Your task to perform on an android device: What's the weather today? Image 0: 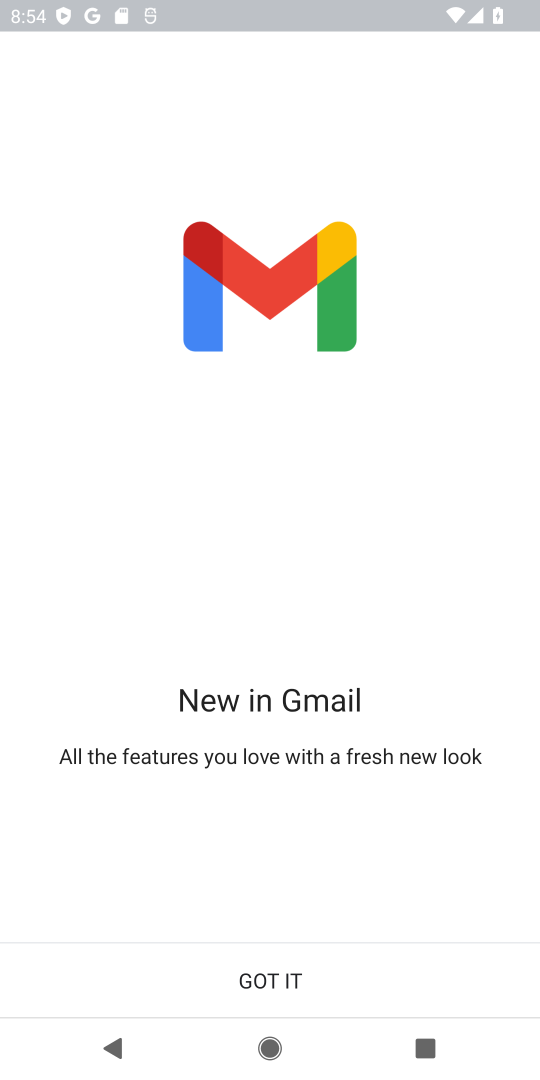
Step 0: press home button
Your task to perform on an android device: What's the weather today? Image 1: 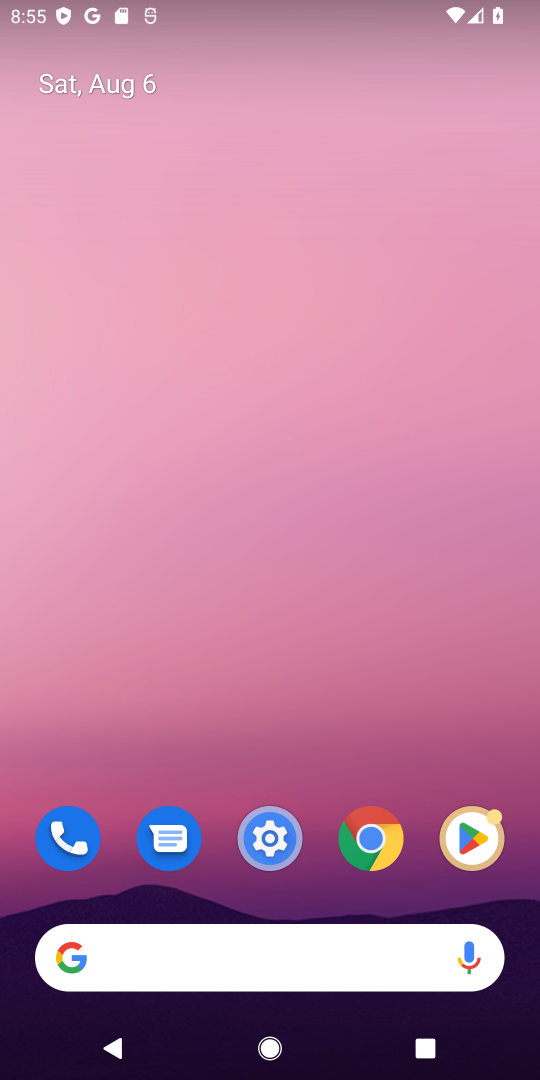
Step 1: click (351, 969)
Your task to perform on an android device: What's the weather today? Image 2: 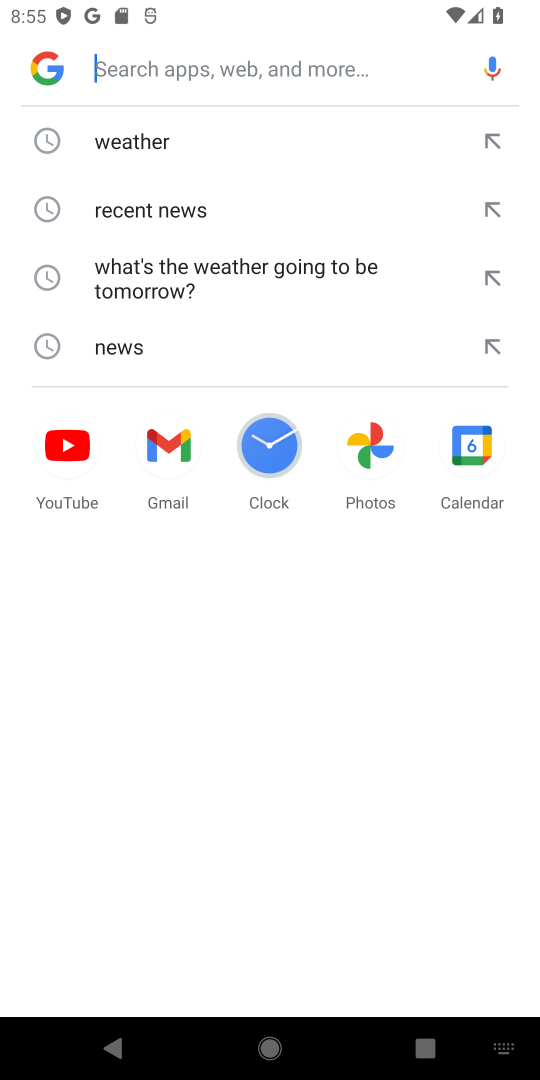
Step 2: click (195, 139)
Your task to perform on an android device: What's the weather today? Image 3: 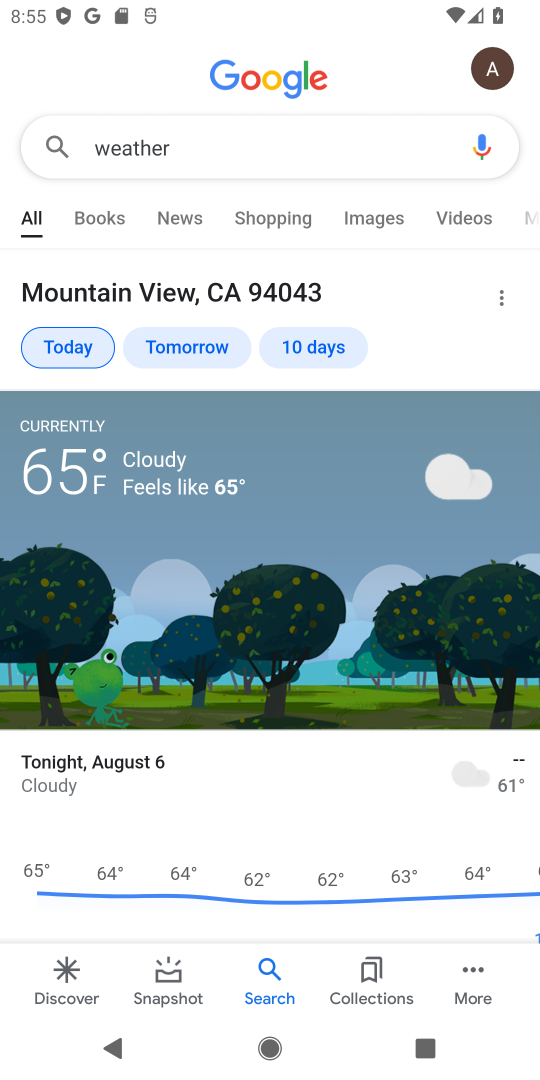
Step 3: task complete